Your task to perform on an android device: Go to Wikipedia Image 0: 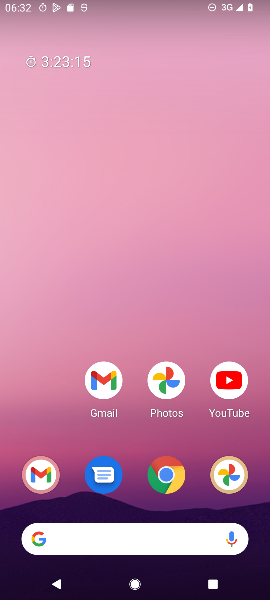
Step 0: press home button
Your task to perform on an android device: Go to Wikipedia Image 1: 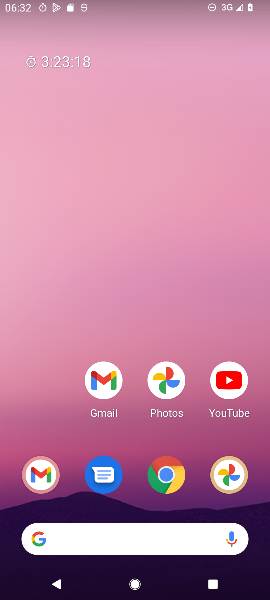
Step 1: drag from (55, 422) to (59, 197)
Your task to perform on an android device: Go to Wikipedia Image 2: 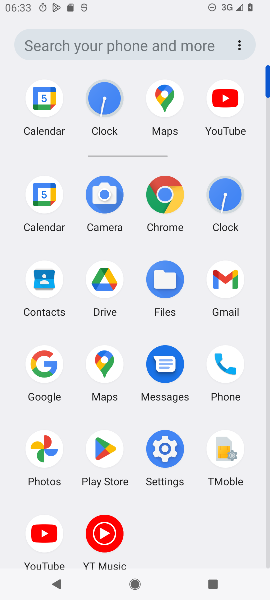
Step 2: click (165, 186)
Your task to perform on an android device: Go to Wikipedia Image 3: 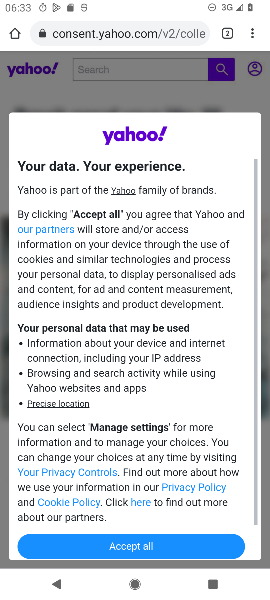
Step 3: click (155, 29)
Your task to perform on an android device: Go to Wikipedia Image 4: 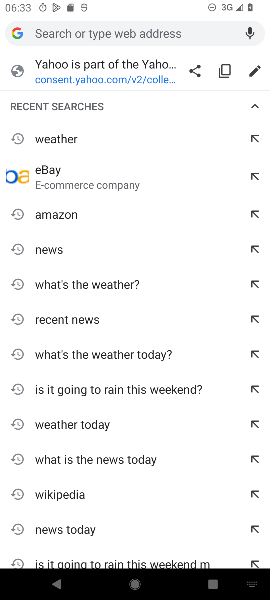
Step 4: type "wikipedia"
Your task to perform on an android device: Go to Wikipedia Image 5: 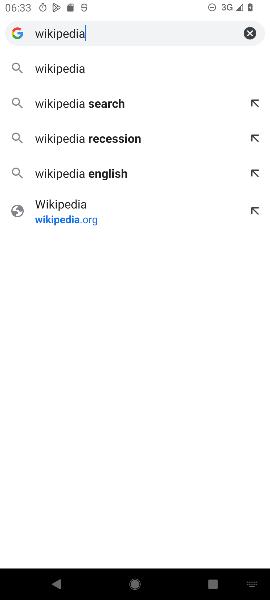
Step 5: click (136, 55)
Your task to perform on an android device: Go to Wikipedia Image 6: 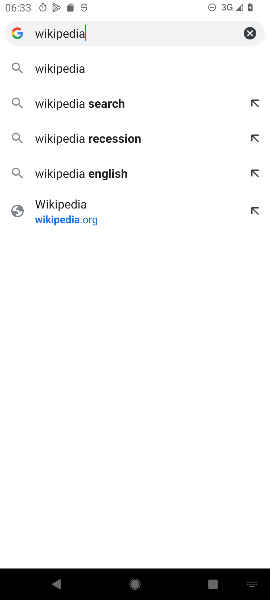
Step 6: click (121, 69)
Your task to perform on an android device: Go to Wikipedia Image 7: 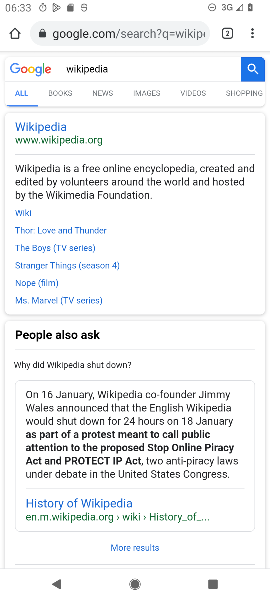
Step 7: task complete